Your task to perform on an android device: Open the web browser Image 0: 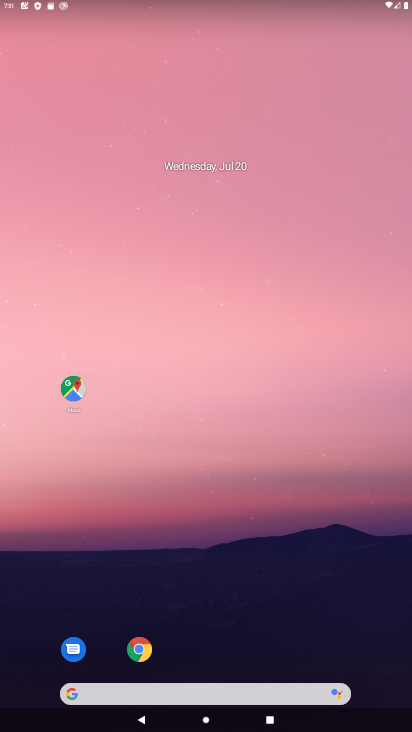
Step 0: click (155, 639)
Your task to perform on an android device: Open the web browser Image 1: 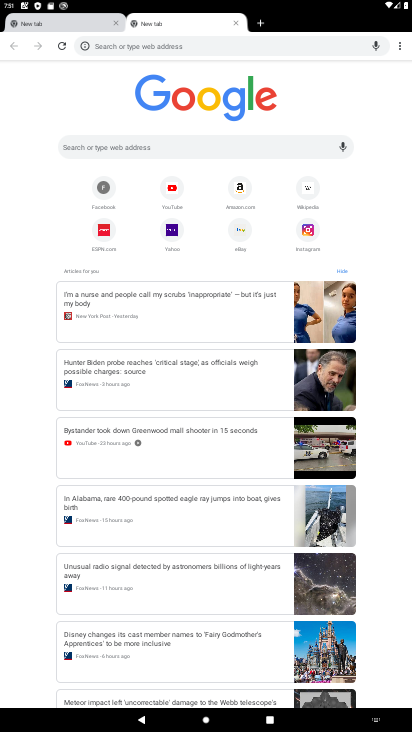
Step 1: task complete